Your task to perform on an android device: Open Google Maps and go to "Timeline" Image 0: 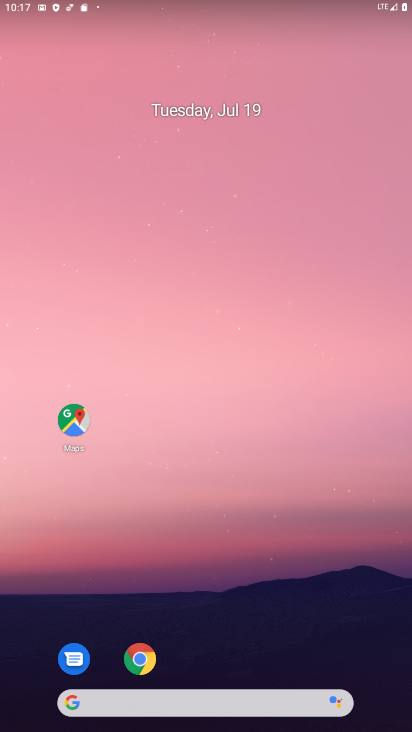
Step 0: click (78, 422)
Your task to perform on an android device: Open Google Maps and go to "Timeline" Image 1: 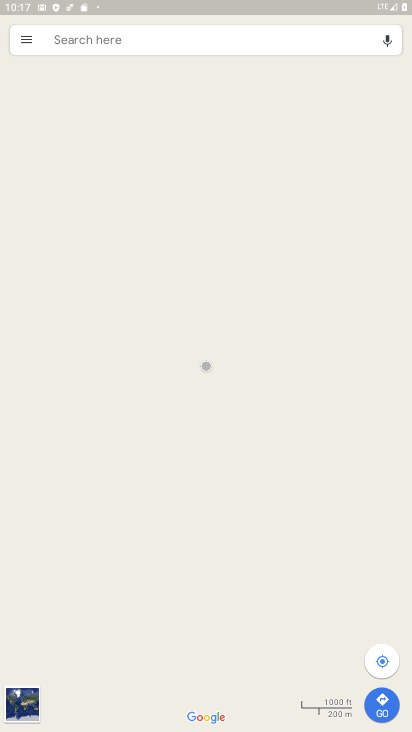
Step 1: click (20, 38)
Your task to perform on an android device: Open Google Maps and go to "Timeline" Image 2: 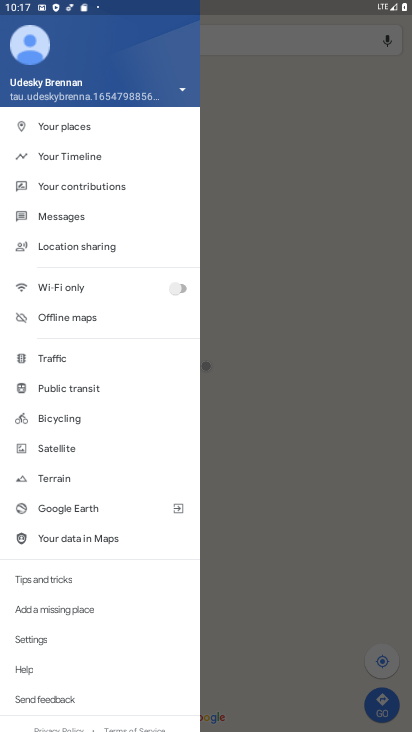
Step 2: click (75, 152)
Your task to perform on an android device: Open Google Maps and go to "Timeline" Image 3: 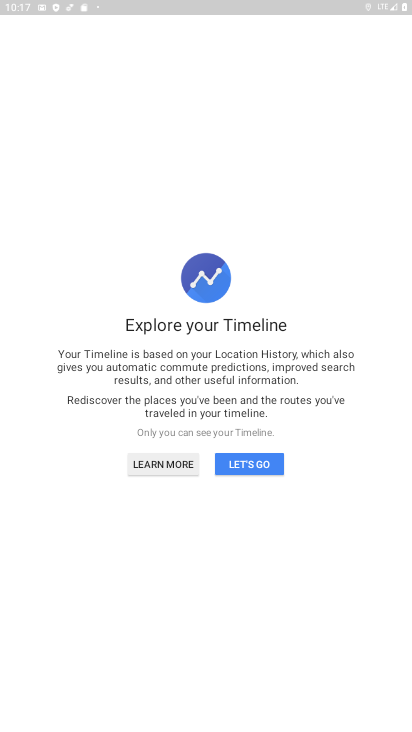
Step 3: task complete